Your task to perform on an android device: Go to privacy settings Image 0: 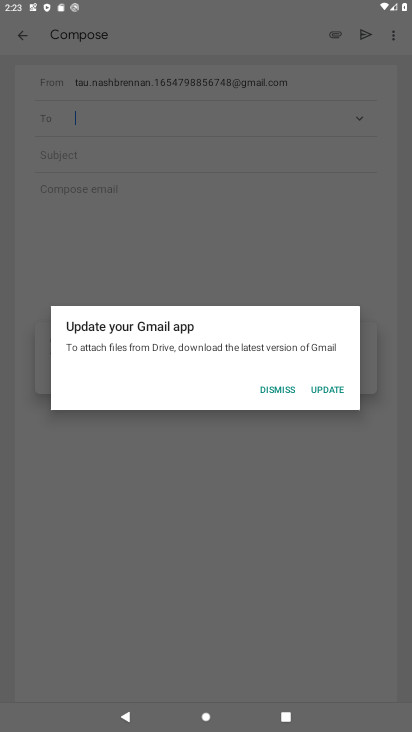
Step 0: press home button
Your task to perform on an android device: Go to privacy settings Image 1: 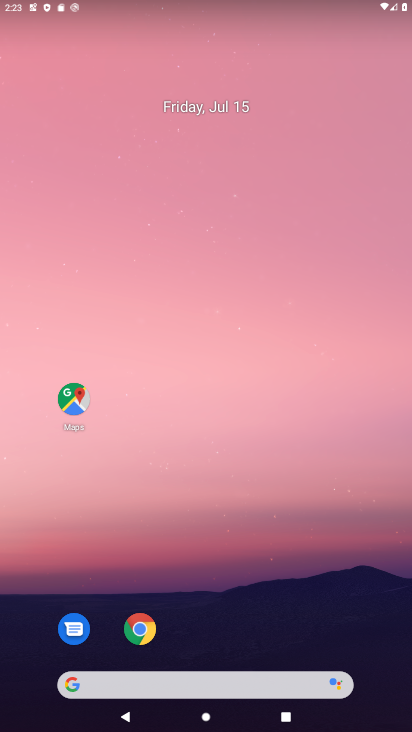
Step 1: drag from (211, 634) to (267, 107)
Your task to perform on an android device: Go to privacy settings Image 2: 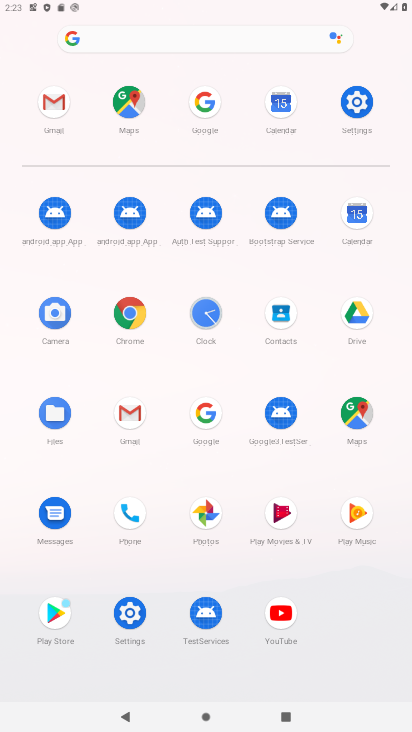
Step 2: click (356, 104)
Your task to perform on an android device: Go to privacy settings Image 3: 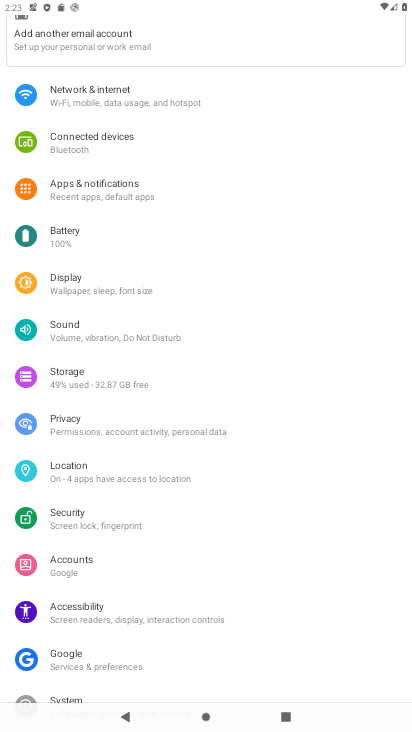
Step 3: click (96, 421)
Your task to perform on an android device: Go to privacy settings Image 4: 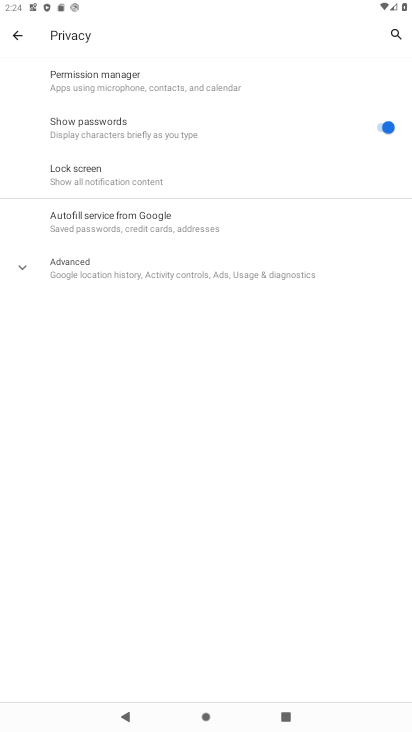
Step 4: task complete